Your task to perform on an android device: uninstall "Google Translate" Image 0: 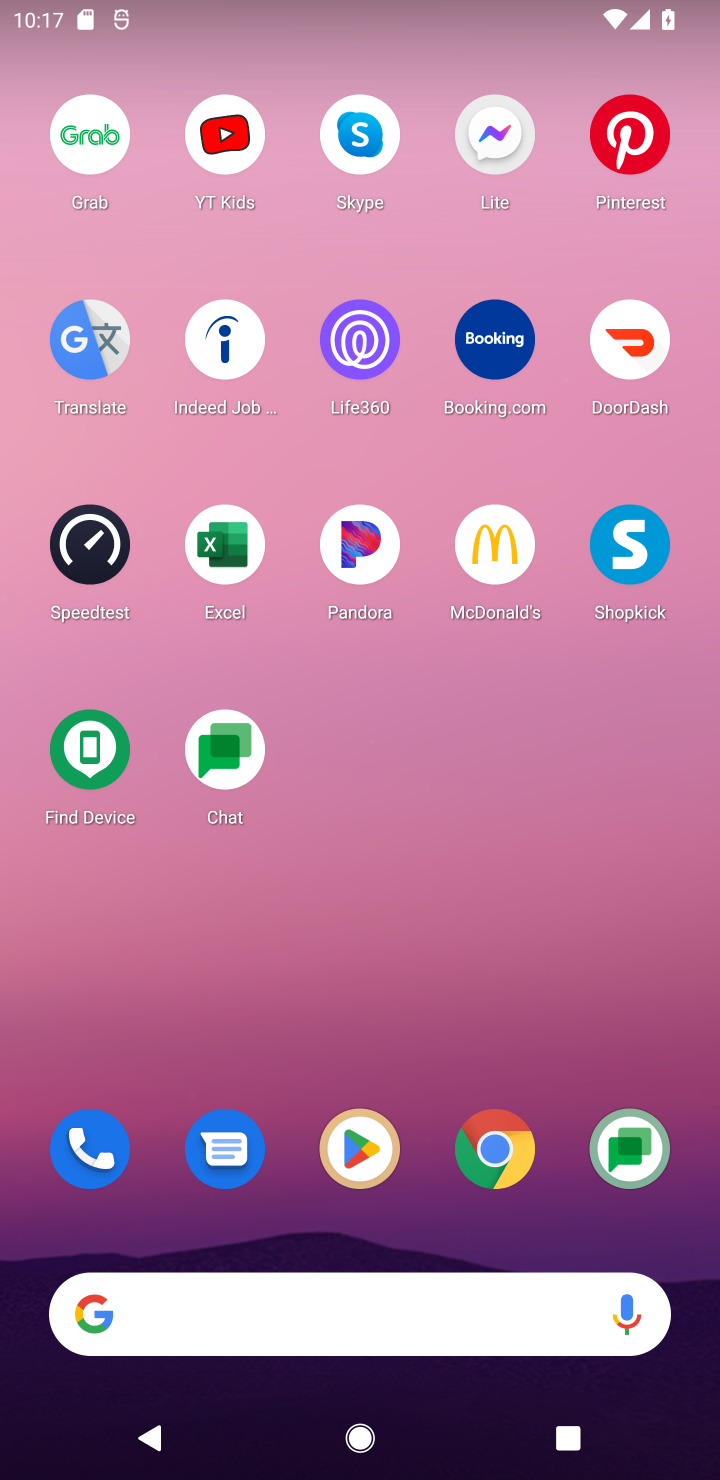
Step 0: press home button
Your task to perform on an android device: uninstall "Google Translate" Image 1: 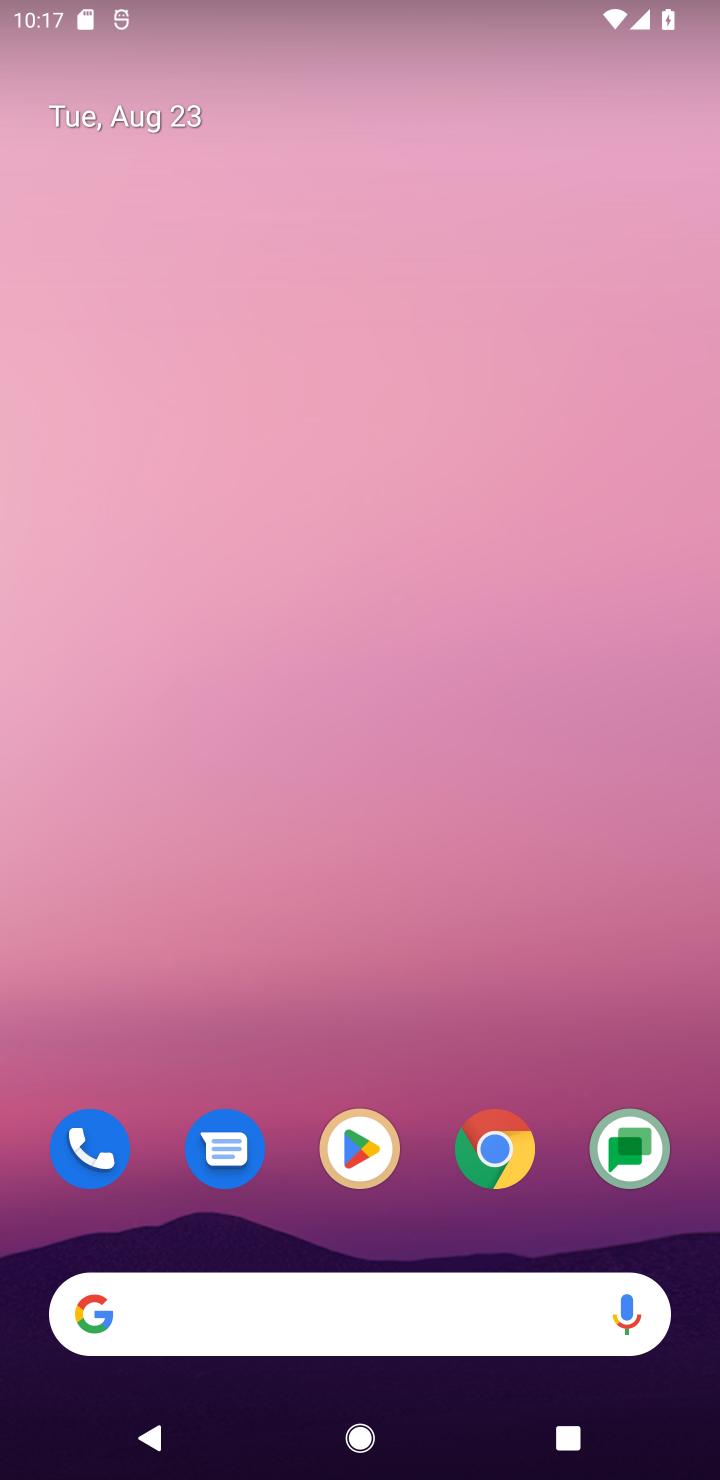
Step 1: click (350, 1171)
Your task to perform on an android device: uninstall "Google Translate" Image 2: 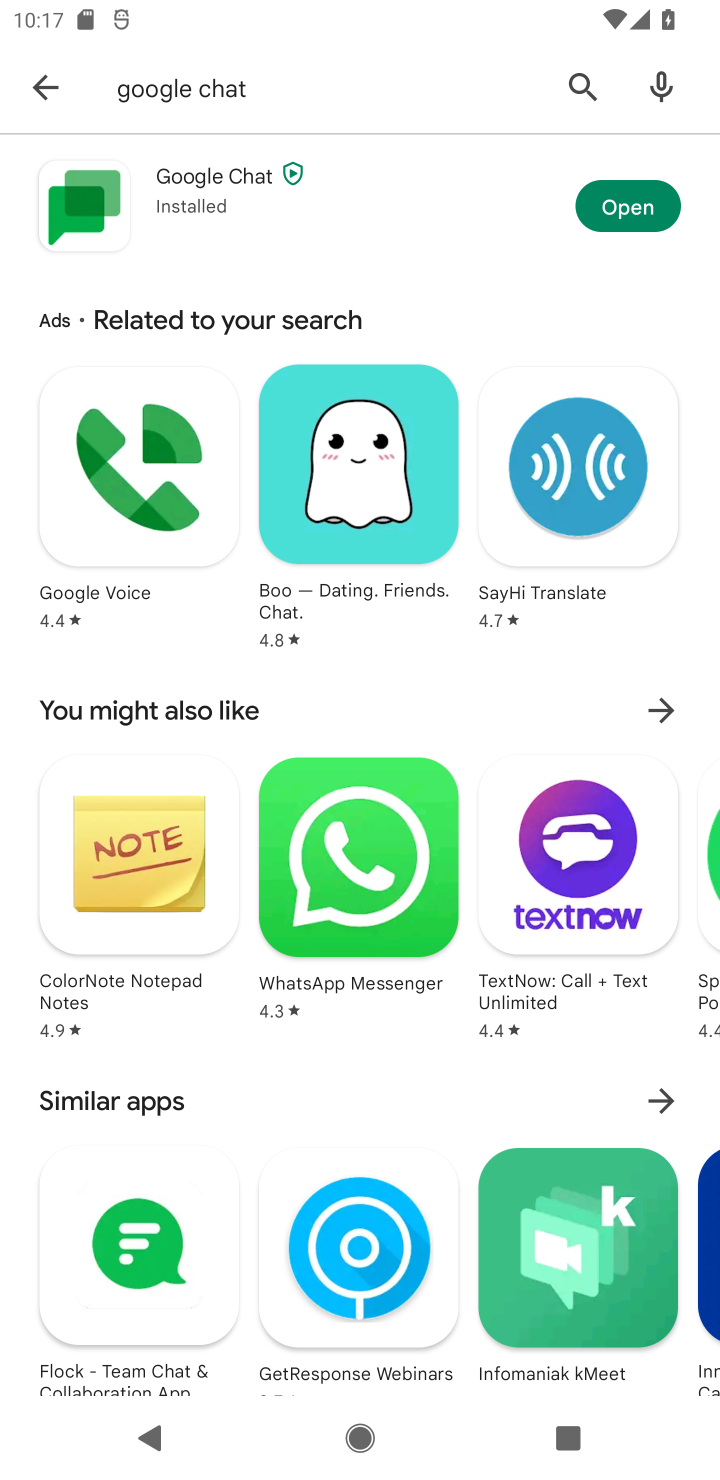
Step 2: click (590, 96)
Your task to perform on an android device: uninstall "Google Translate" Image 3: 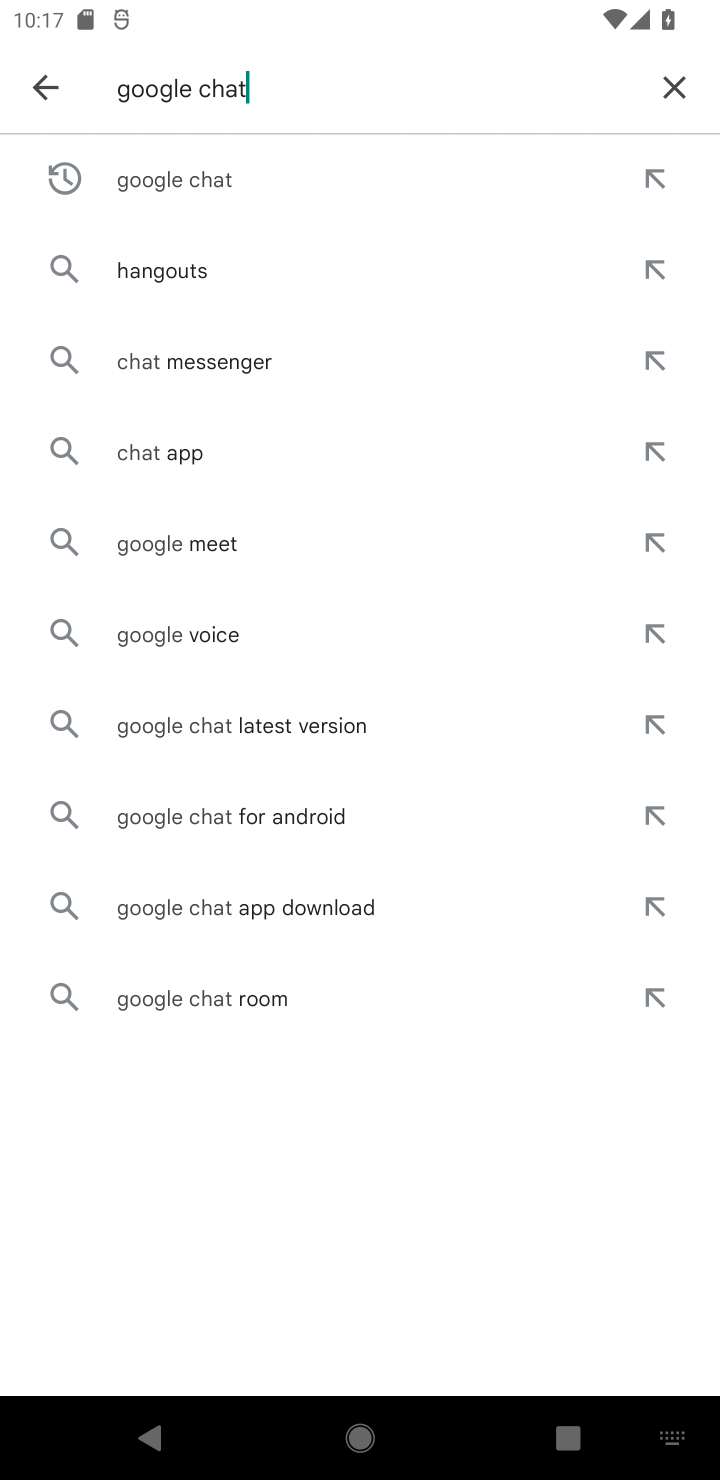
Step 3: click (682, 81)
Your task to perform on an android device: uninstall "Google Translate" Image 4: 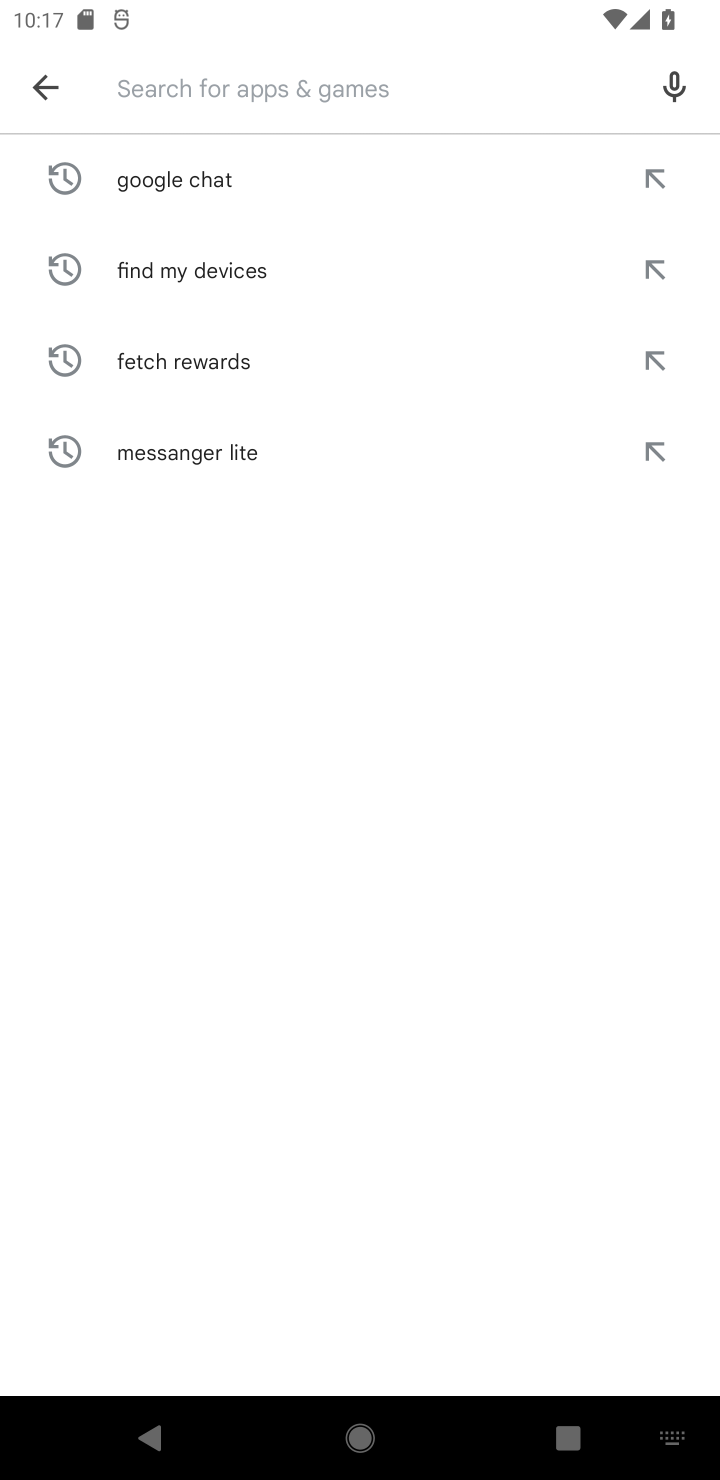
Step 4: type "google translate"
Your task to perform on an android device: uninstall "Google Translate" Image 5: 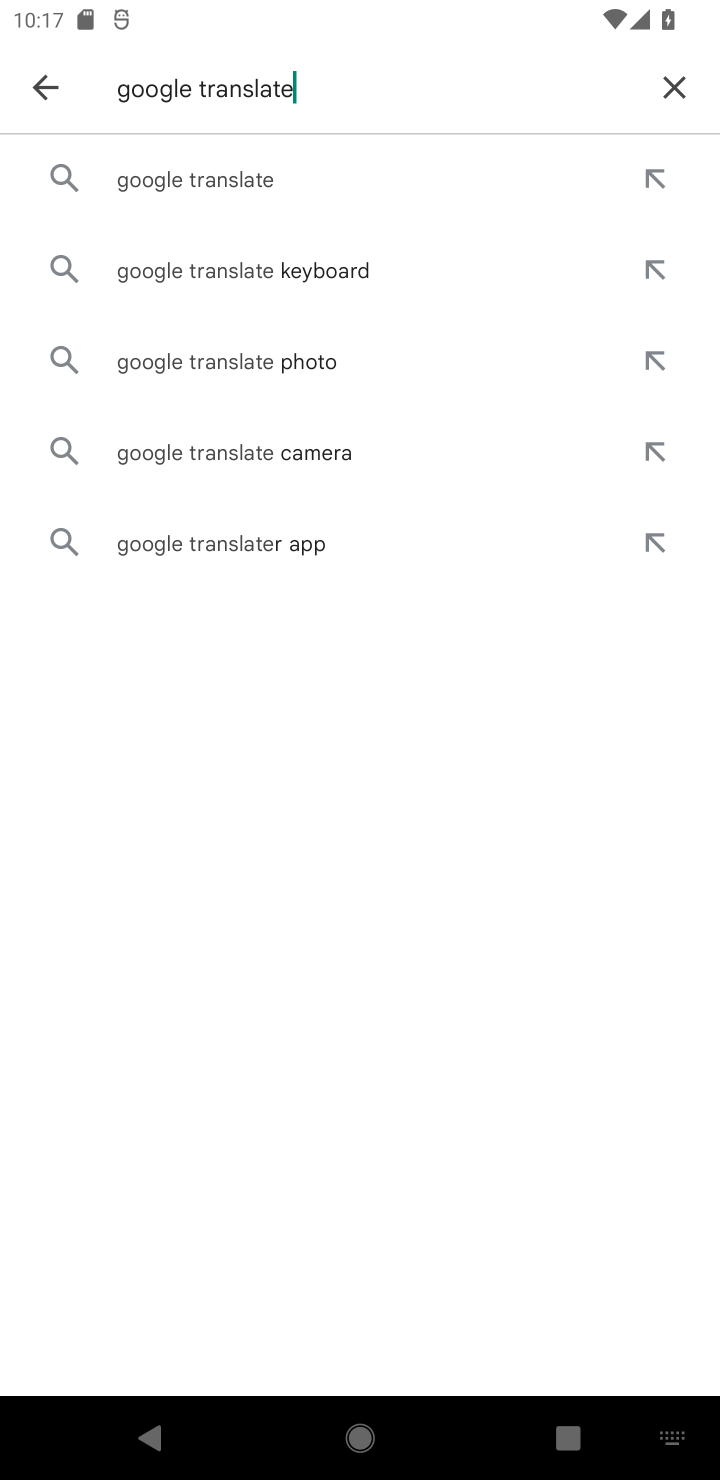
Step 5: click (327, 172)
Your task to perform on an android device: uninstall "Google Translate" Image 6: 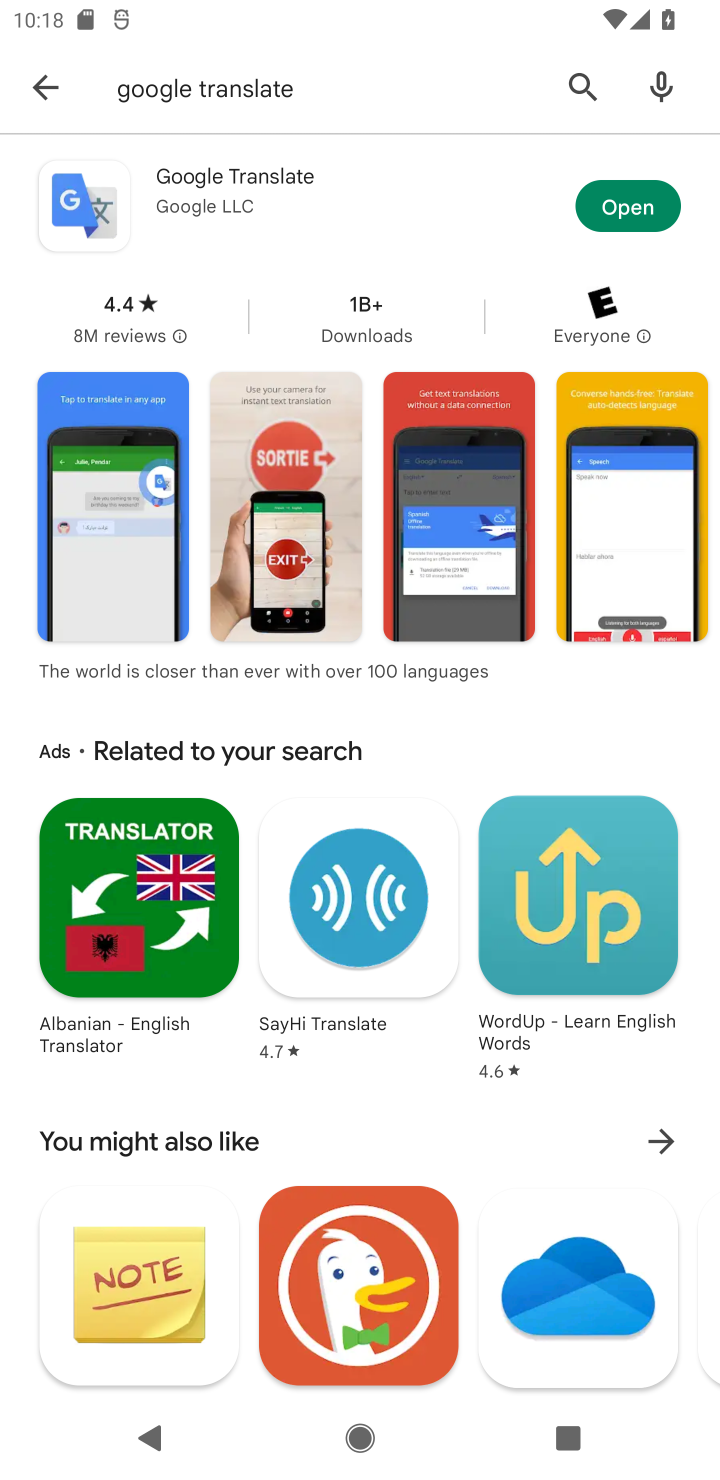
Step 6: click (605, 191)
Your task to perform on an android device: uninstall "Google Translate" Image 7: 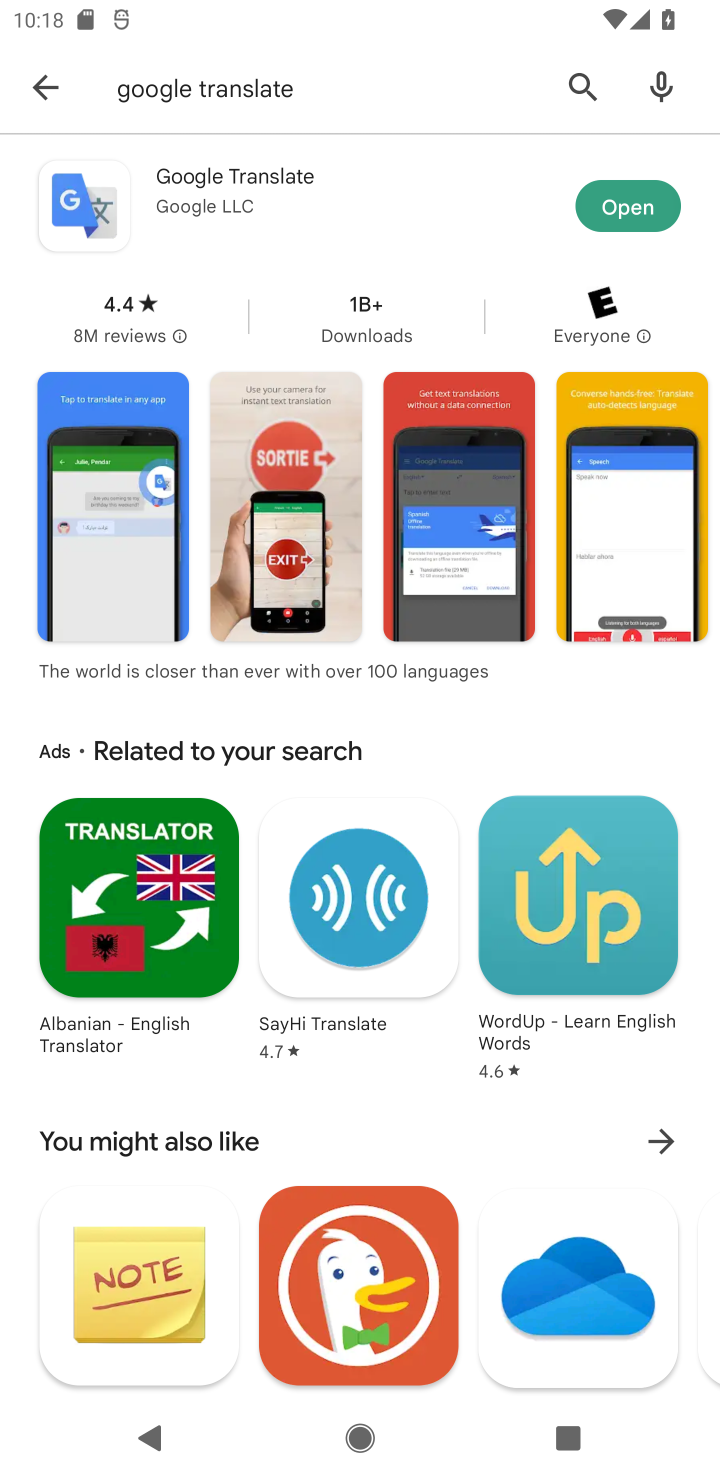
Step 7: task complete